Your task to perform on an android device: open a bookmark in the chrome app Image 0: 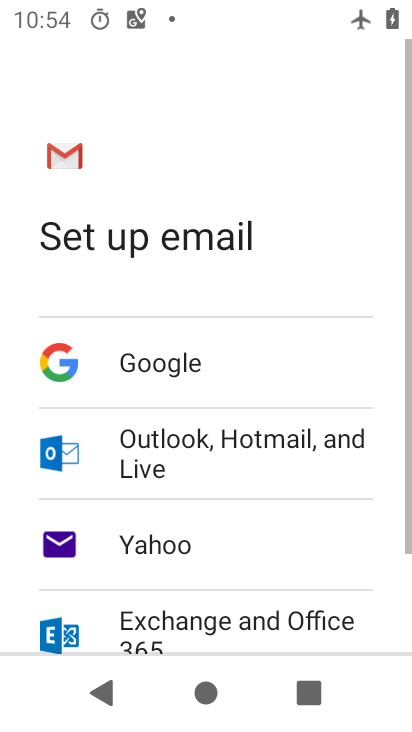
Step 0: press home button
Your task to perform on an android device: open a bookmark in the chrome app Image 1: 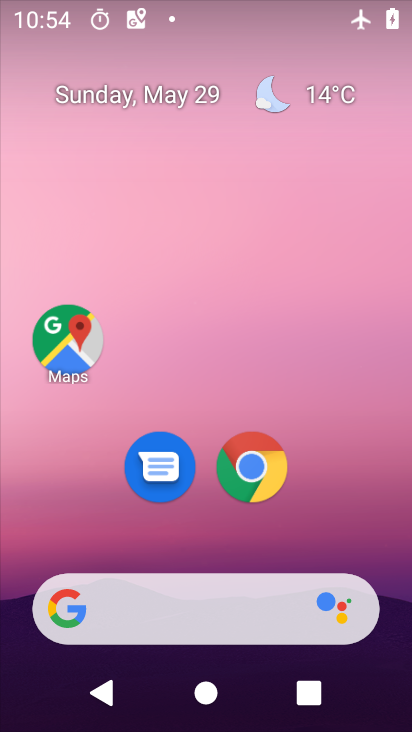
Step 1: click (254, 483)
Your task to perform on an android device: open a bookmark in the chrome app Image 2: 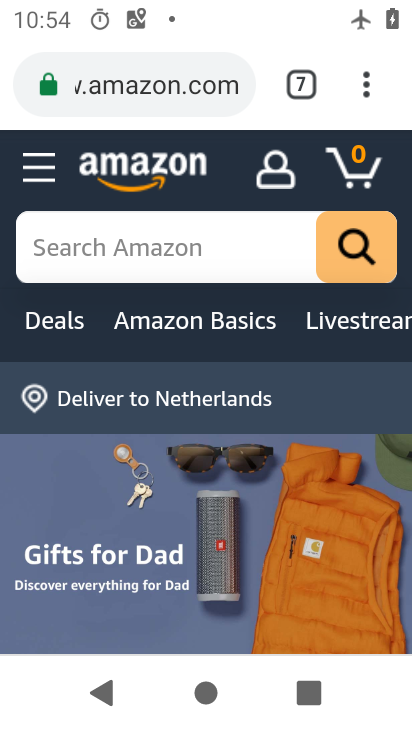
Step 2: click (358, 77)
Your task to perform on an android device: open a bookmark in the chrome app Image 3: 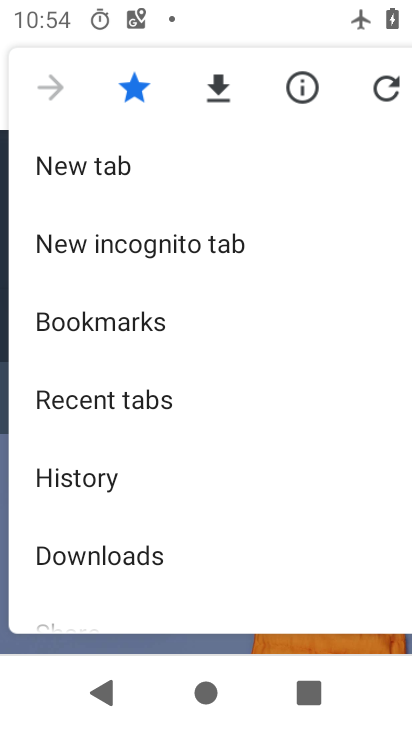
Step 3: click (118, 325)
Your task to perform on an android device: open a bookmark in the chrome app Image 4: 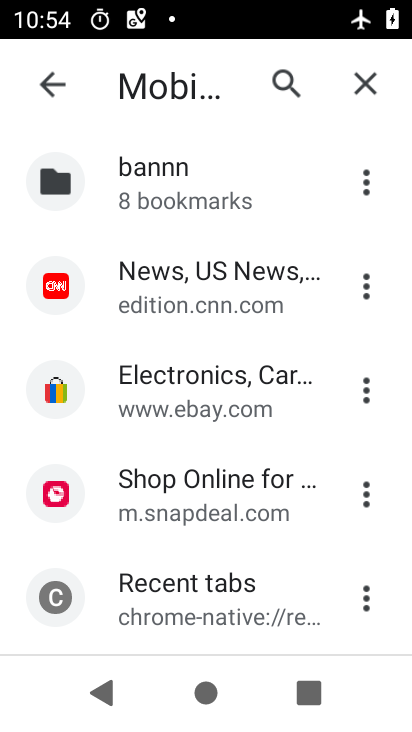
Step 4: drag from (195, 521) to (198, 195)
Your task to perform on an android device: open a bookmark in the chrome app Image 5: 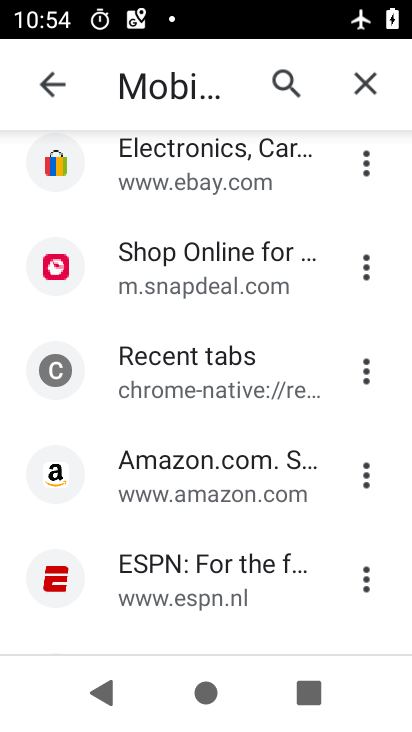
Step 5: click (177, 455)
Your task to perform on an android device: open a bookmark in the chrome app Image 6: 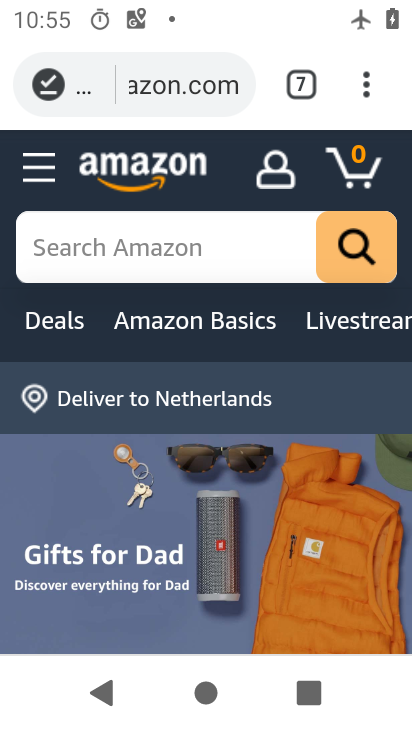
Step 6: task complete